Your task to perform on an android device: change the clock style Image 0: 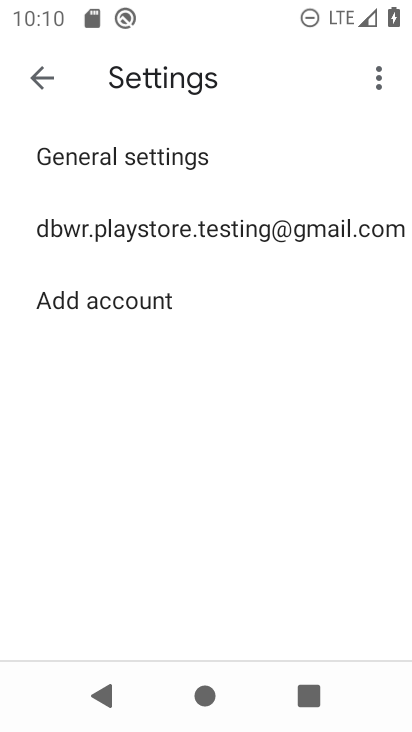
Step 0: press home button
Your task to perform on an android device: change the clock style Image 1: 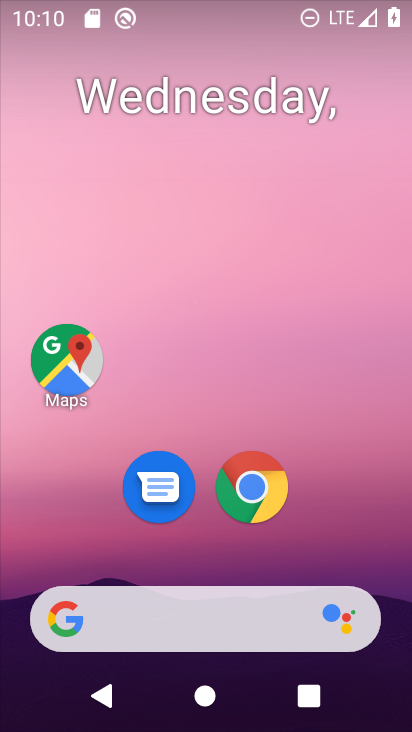
Step 1: click (262, 487)
Your task to perform on an android device: change the clock style Image 2: 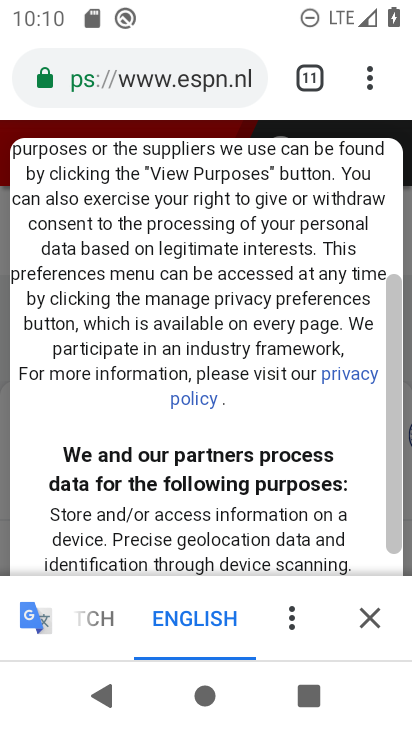
Step 2: click (366, 73)
Your task to perform on an android device: change the clock style Image 3: 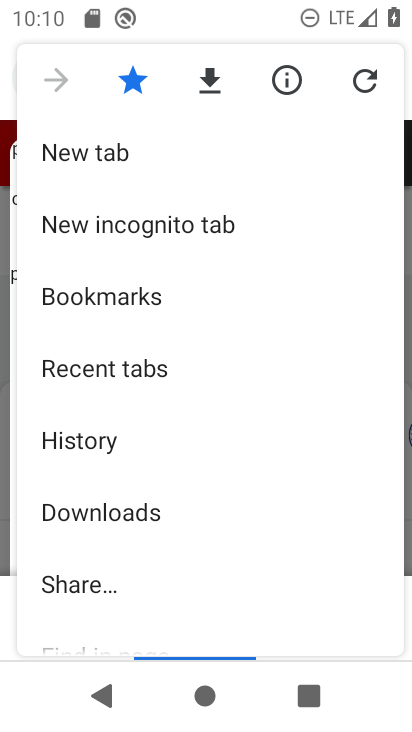
Step 3: click (96, 144)
Your task to perform on an android device: change the clock style Image 4: 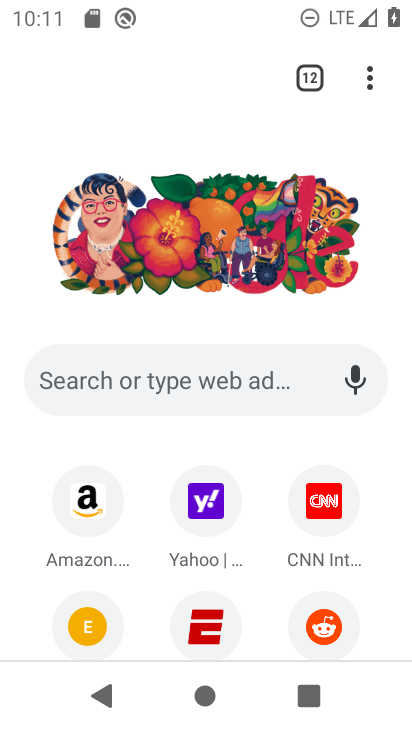
Step 4: click (190, 384)
Your task to perform on an android device: change the clock style Image 5: 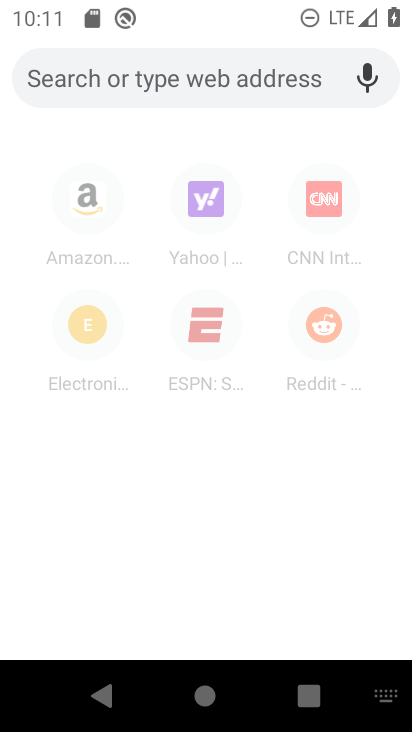
Step 5: press home button
Your task to perform on an android device: change the clock style Image 6: 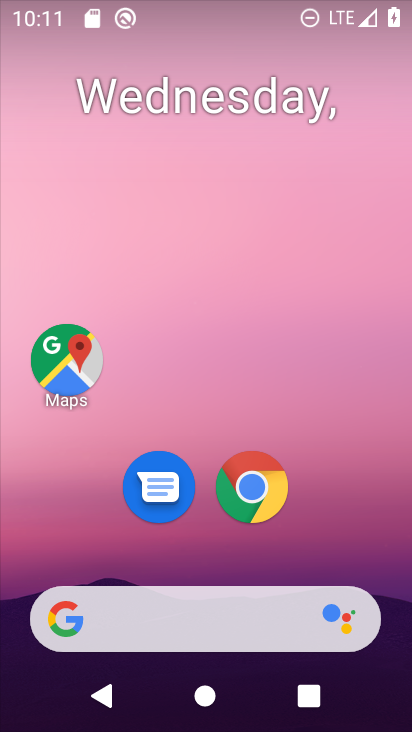
Step 6: drag from (330, 530) to (222, 2)
Your task to perform on an android device: change the clock style Image 7: 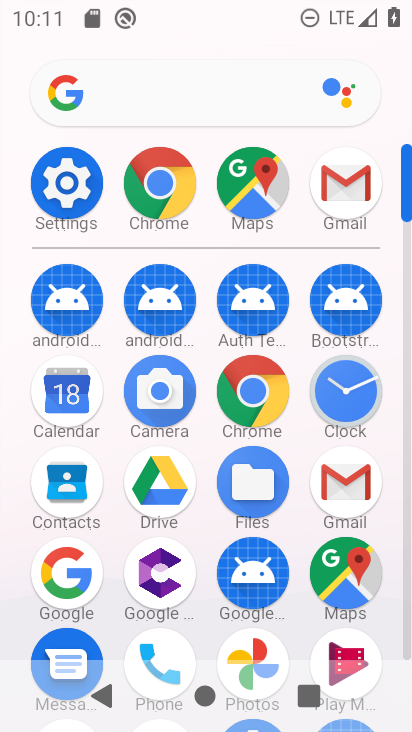
Step 7: click (341, 387)
Your task to perform on an android device: change the clock style Image 8: 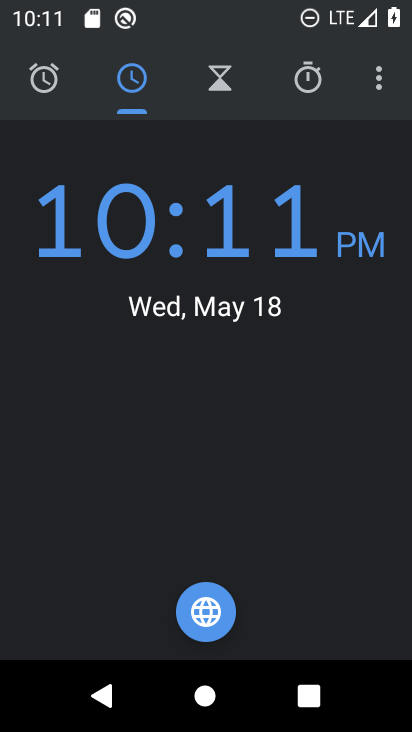
Step 8: click (374, 77)
Your task to perform on an android device: change the clock style Image 9: 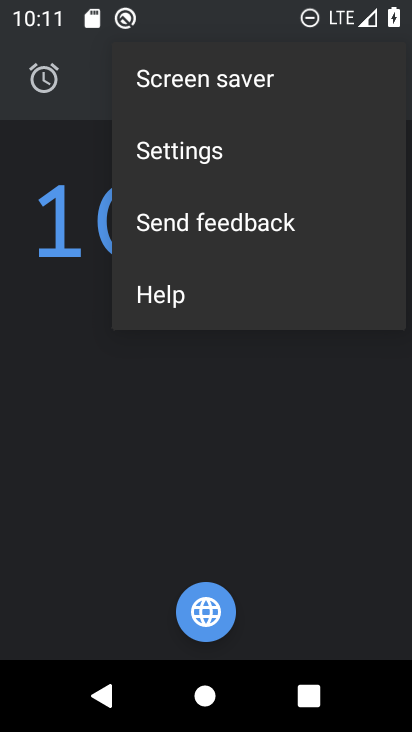
Step 9: click (186, 141)
Your task to perform on an android device: change the clock style Image 10: 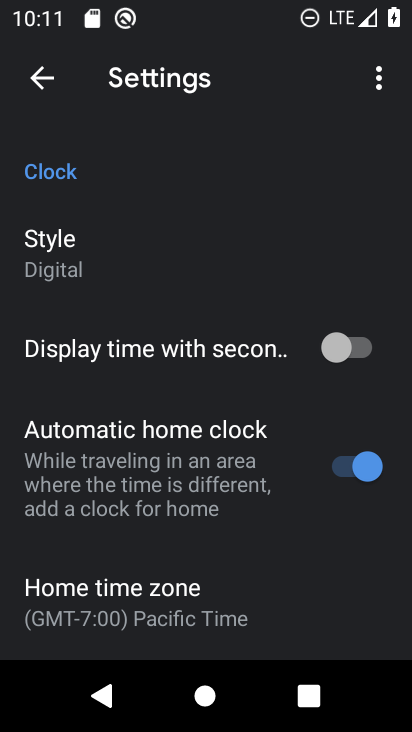
Step 10: click (61, 247)
Your task to perform on an android device: change the clock style Image 11: 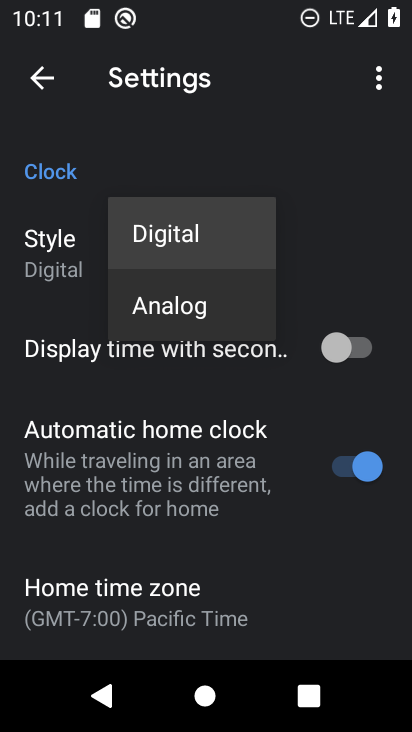
Step 11: click (163, 298)
Your task to perform on an android device: change the clock style Image 12: 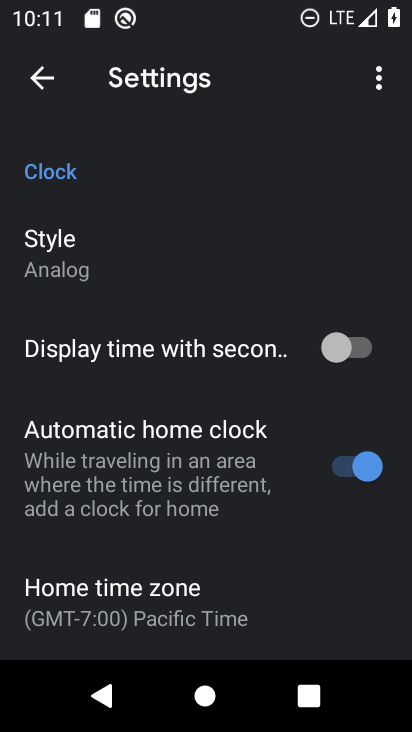
Step 12: task complete